Your task to perform on an android device: What's on my calendar today? Image 0: 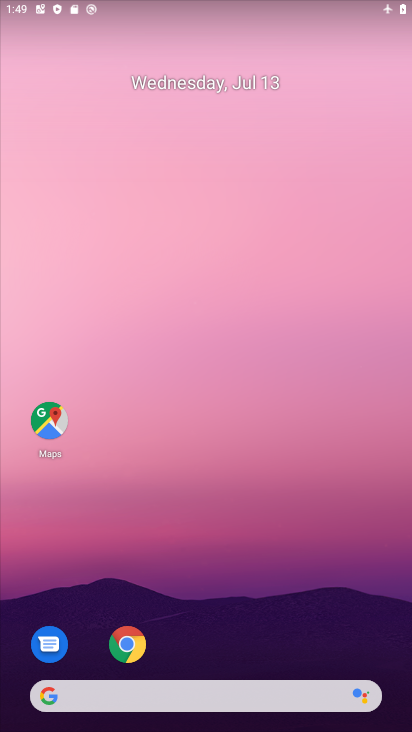
Step 0: drag from (278, 553) to (237, 108)
Your task to perform on an android device: What's on my calendar today? Image 1: 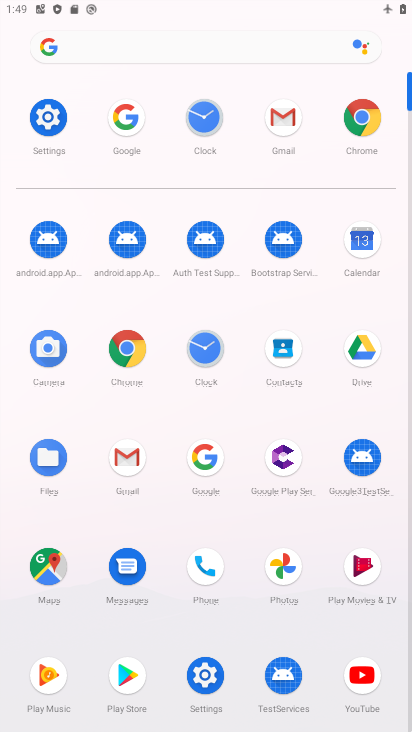
Step 1: click (361, 238)
Your task to perform on an android device: What's on my calendar today? Image 2: 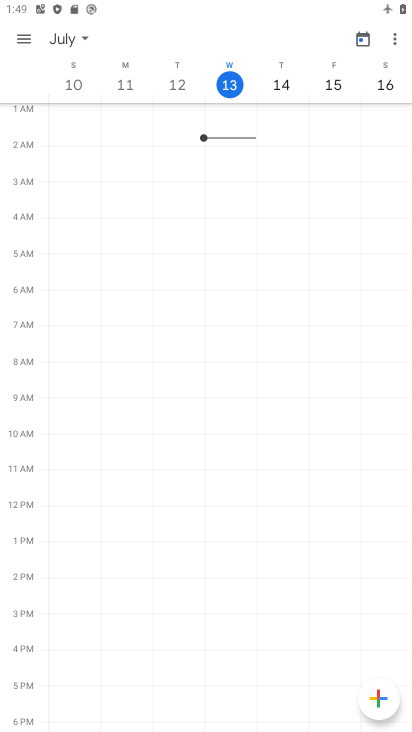
Step 2: task complete